Your task to perform on an android device: check battery use Image 0: 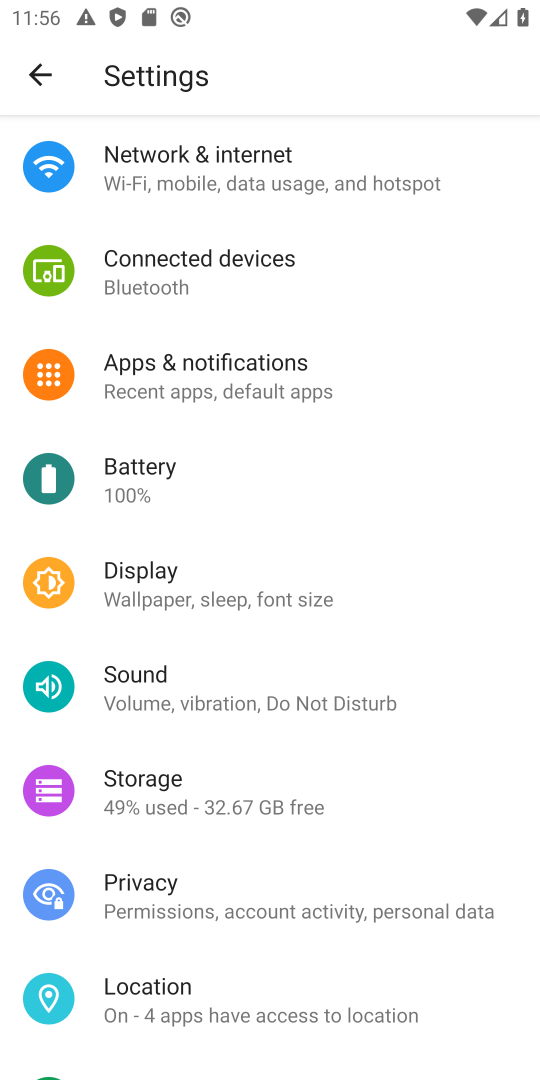
Step 0: drag from (432, 949) to (415, 699)
Your task to perform on an android device: check battery use Image 1: 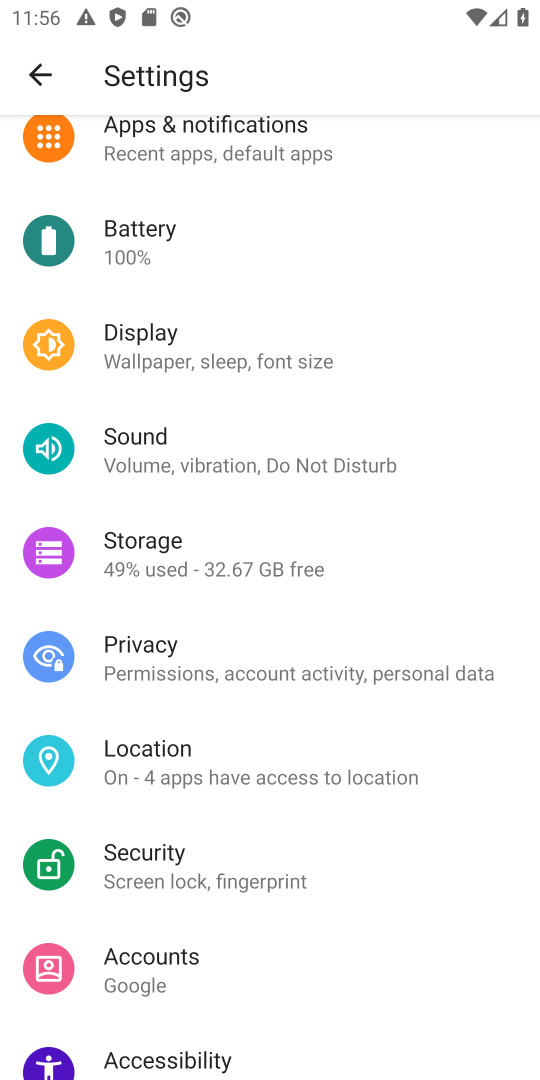
Step 1: click (191, 222)
Your task to perform on an android device: check battery use Image 2: 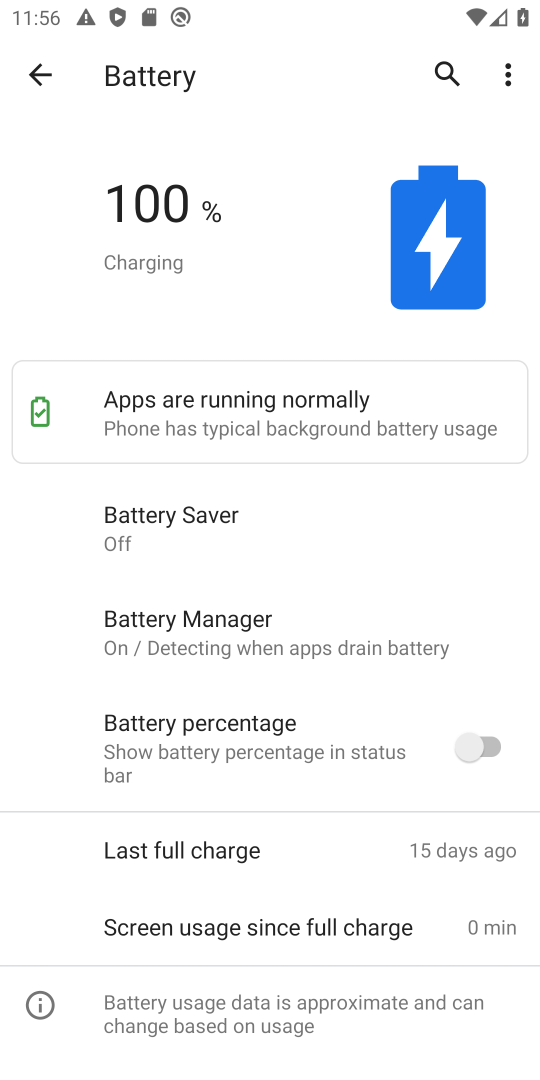
Step 2: click (512, 73)
Your task to perform on an android device: check battery use Image 3: 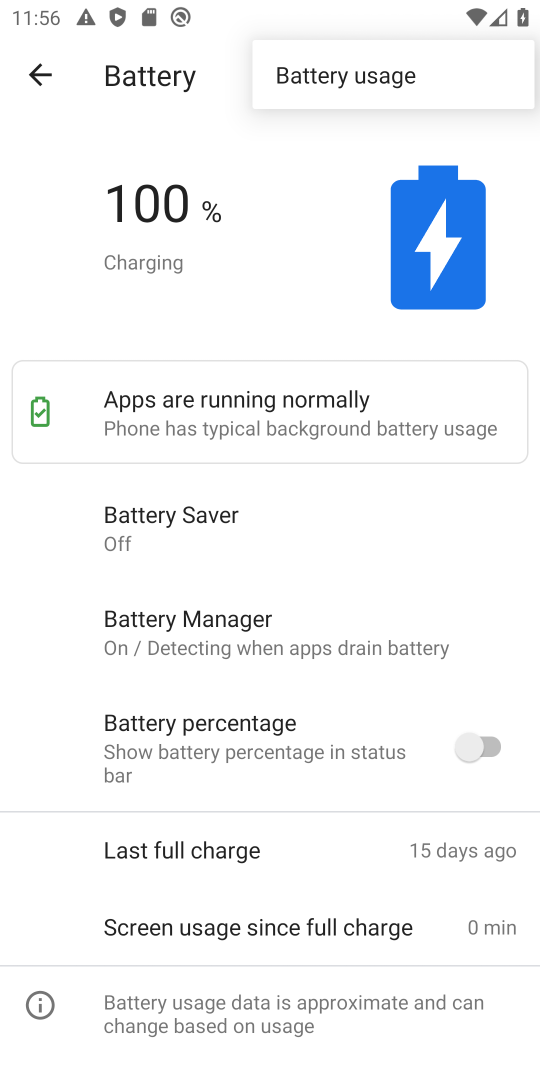
Step 3: click (433, 74)
Your task to perform on an android device: check battery use Image 4: 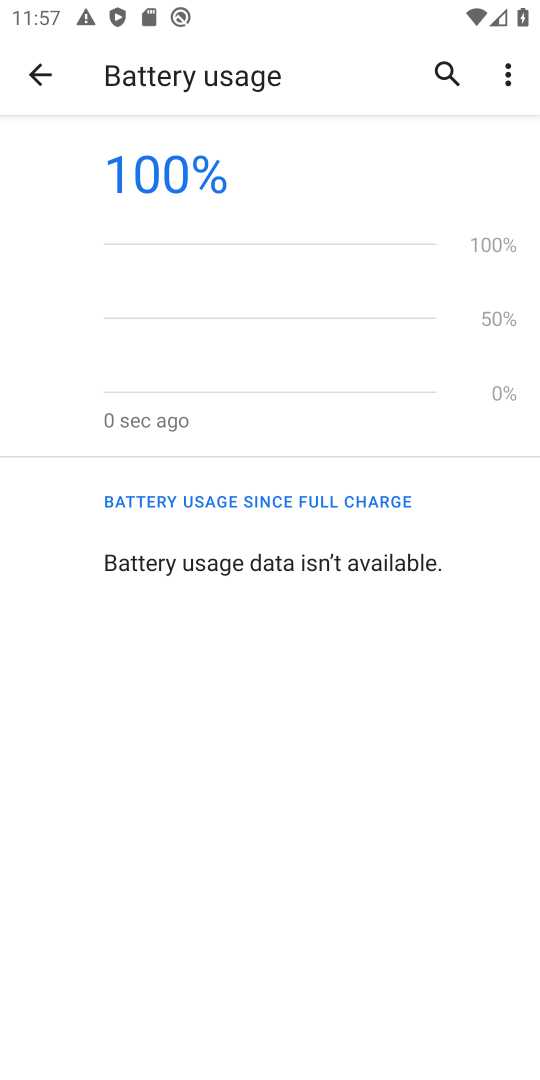
Step 4: task complete